Your task to perform on an android device: turn on location history Image 0: 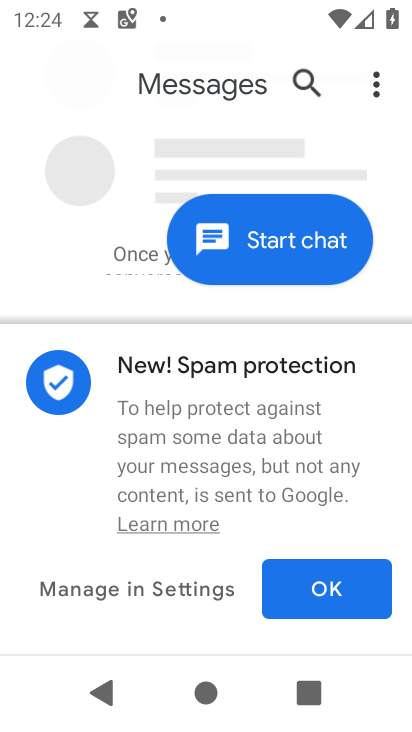
Step 0: press home button
Your task to perform on an android device: turn on location history Image 1: 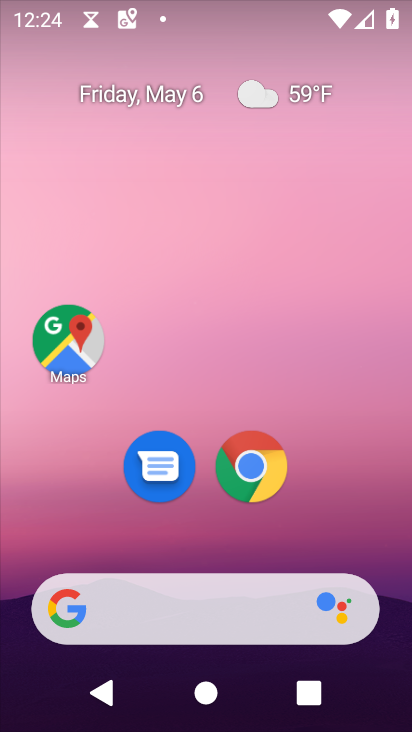
Step 1: drag from (358, 517) to (323, 73)
Your task to perform on an android device: turn on location history Image 2: 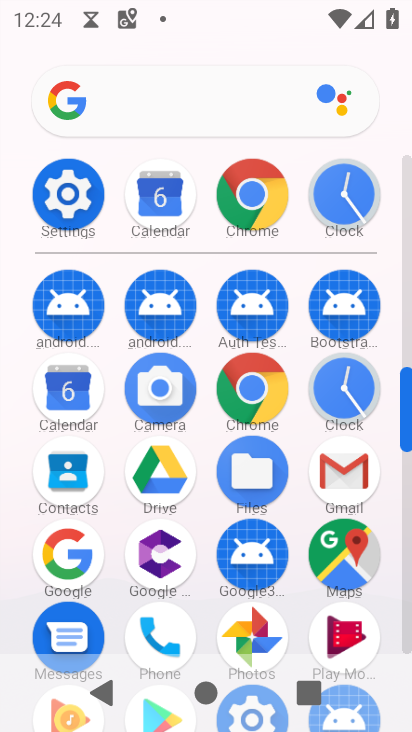
Step 2: click (357, 563)
Your task to perform on an android device: turn on location history Image 3: 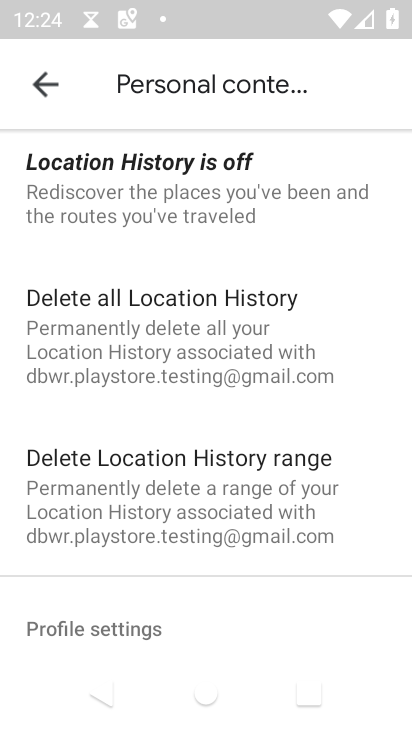
Step 3: click (269, 191)
Your task to perform on an android device: turn on location history Image 4: 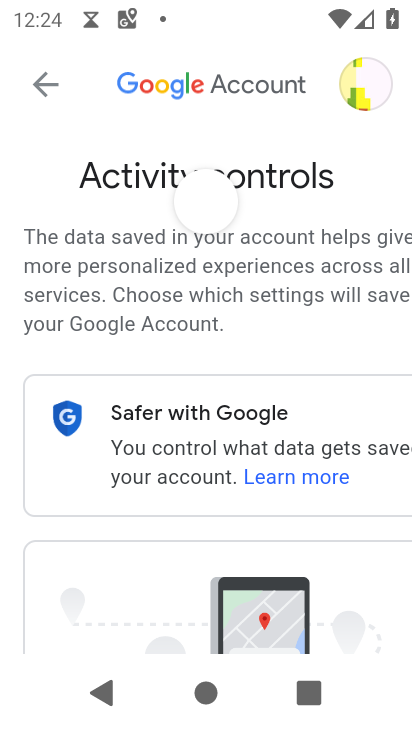
Step 4: drag from (215, 524) to (179, 63)
Your task to perform on an android device: turn on location history Image 5: 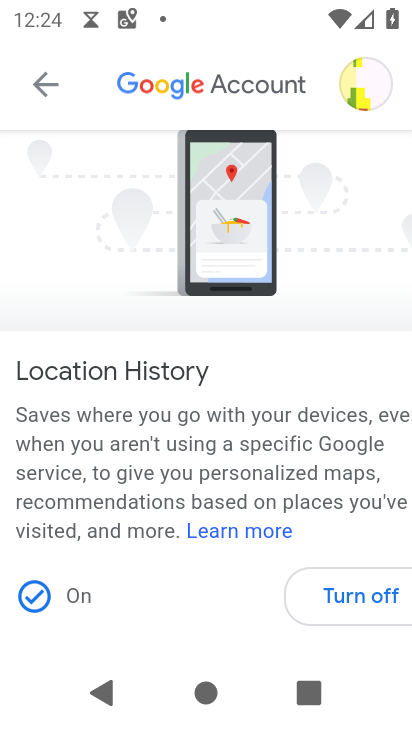
Step 5: click (70, 601)
Your task to perform on an android device: turn on location history Image 6: 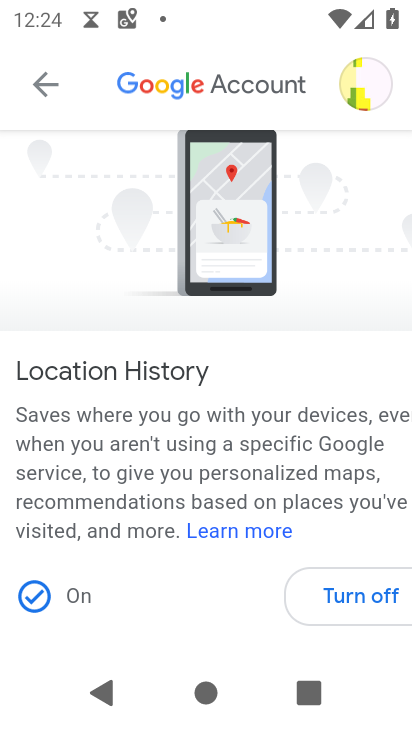
Step 6: task complete